Your task to perform on an android device: toggle notifications settings in the gmail app Image 0: 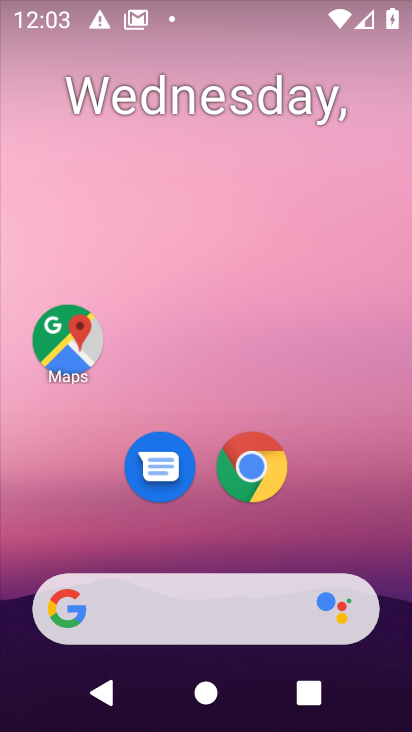
Step 0: drag from (207, 334) to (226, 65)
Your task to perform on an android device: toggle notifications settings in the gmail app Image 1: 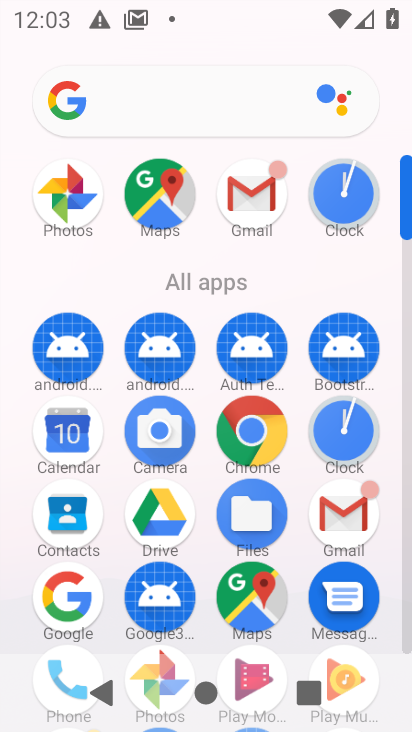
Step 1: click (245, 174)
Your task to perform on an android device: toggle notifications settings in the gmail app Image 2: 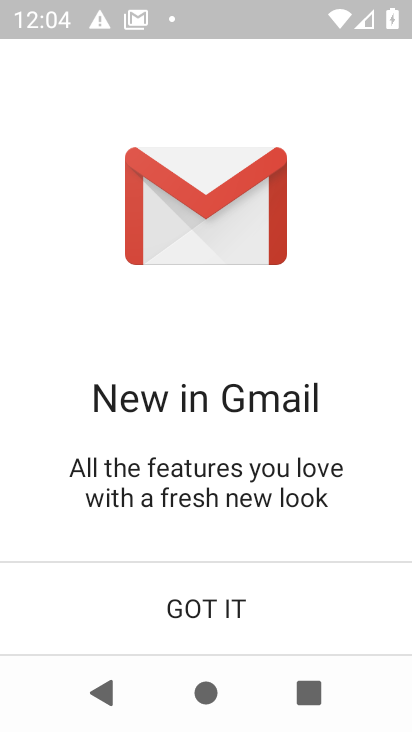
Step 2: click (119, 595)
Your task to perform on an android device: toggle notifications settings in the gmail app Image 3: 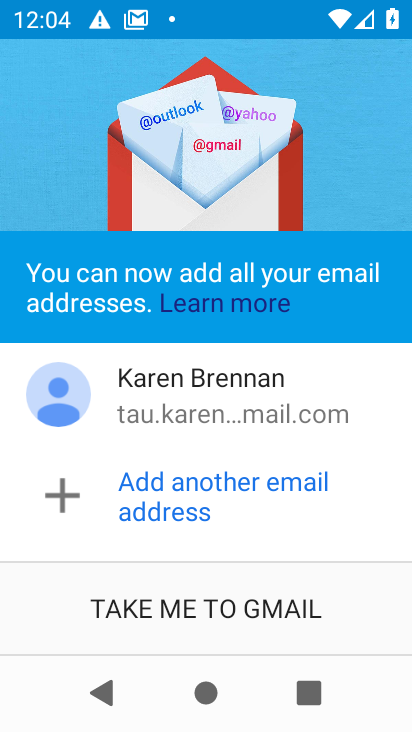
Step 3: click (119, 595)
Your task to perform on an android device: toggle notifications settings in the gmail app Image 4: 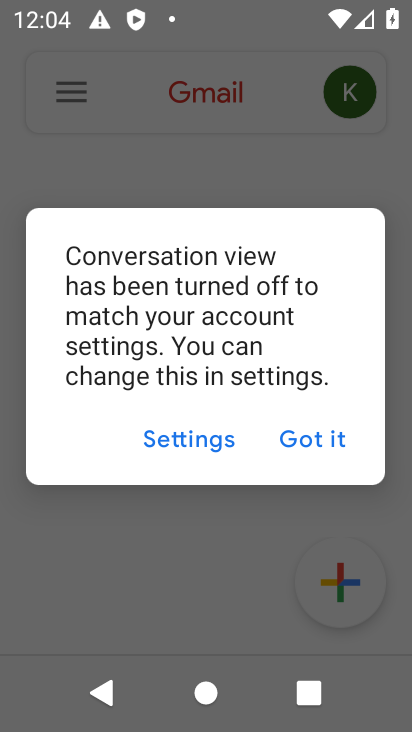
Step 4: click (339, 445)
Your task to perform on an android device: toggle notifications settings in the gmail app Image 5: 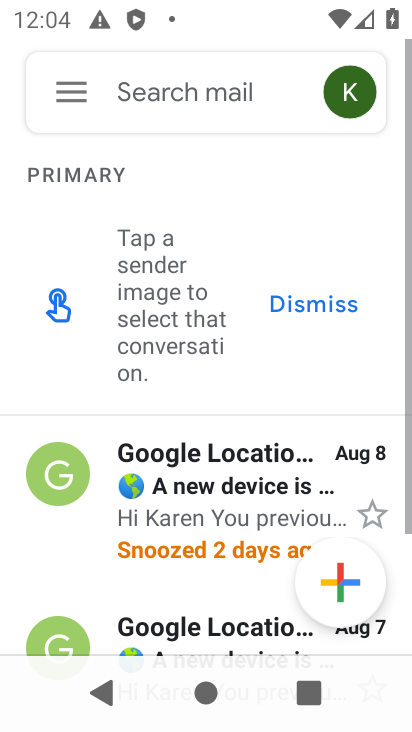
Step 5: click (82, 86)
Your task to perform on an android device: toggle notifications settings in the gmail app Image 6: 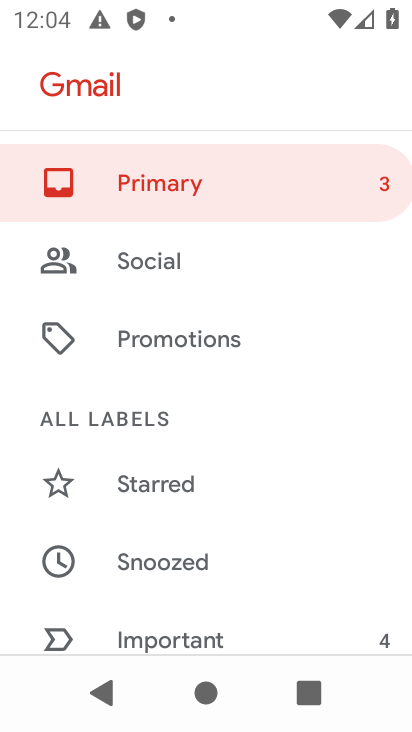
Step 6: drag from (230, 593) to (255, 97)
Your task to perform on an android device: toggle notifications settings in the gmail app Image 7: 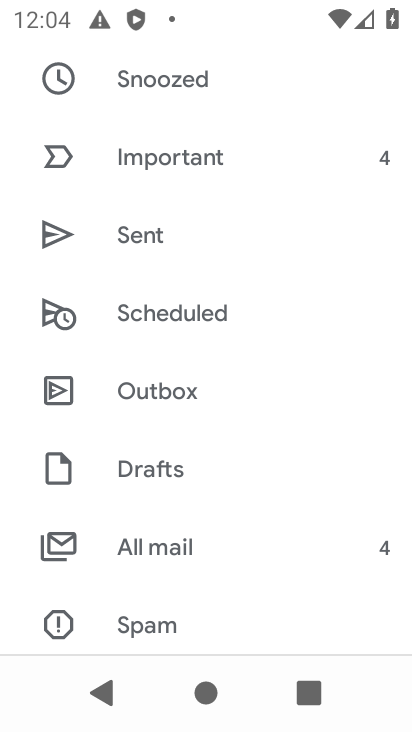
Step 7: drag from (302, 607) to (303, 223)
Your task to perform on an android device: toggle notifications settings in the gmail app Image 8: 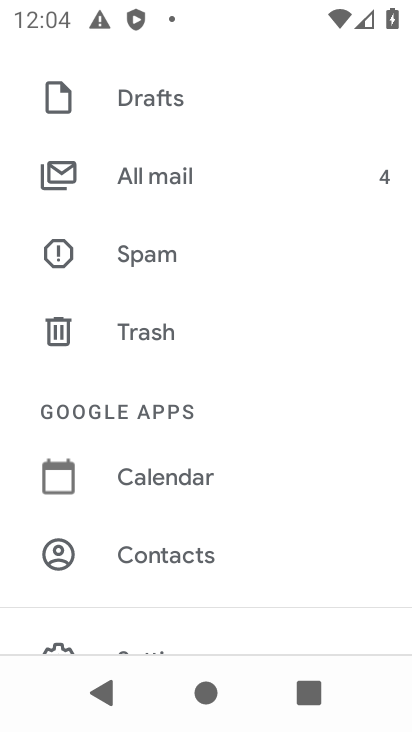
Step 8: drag from (260, 574) to (269, 149)
Your task to perform on an android device: toggle notifications settings in the gmail app Image 9: 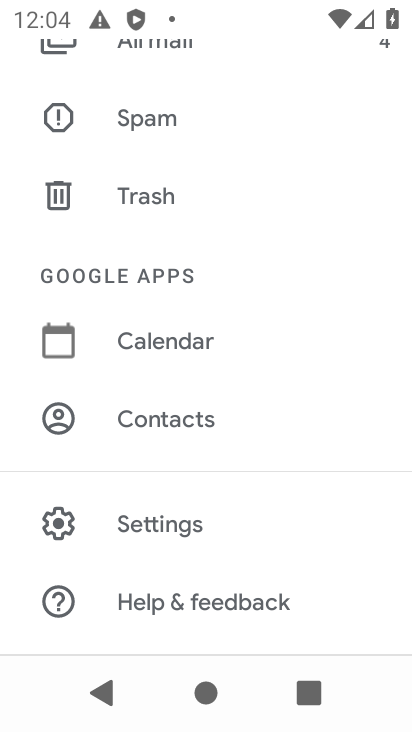
Step 9: click (160, 524)
Your task to perform on an android device: toggle notifications settings in the gmail app Image 10: 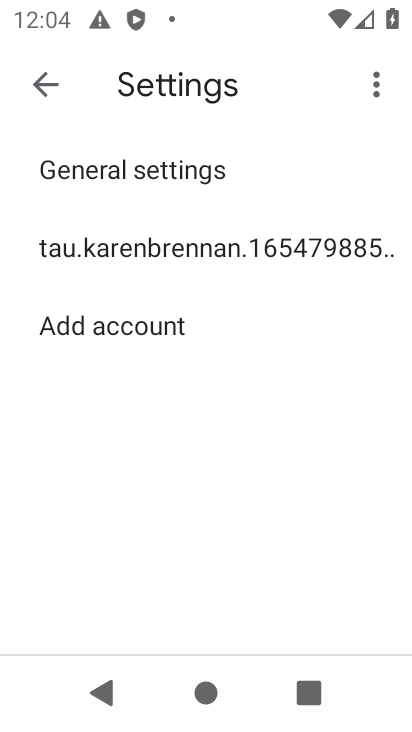
Step 10: click (284, 262)
Your task to perform on an android device: toggle notifications settings in the gmail app Image 11: 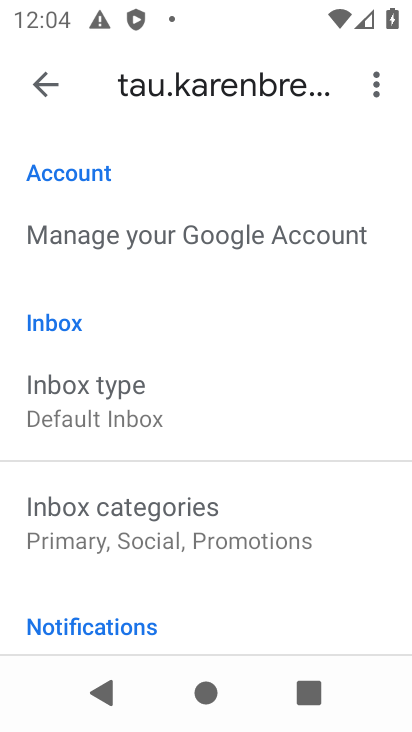
Step 11: drag from (138, 604) to (134, 173)
Your task to perform on an android device: toggle notifications settings in the gmail app Image 12: 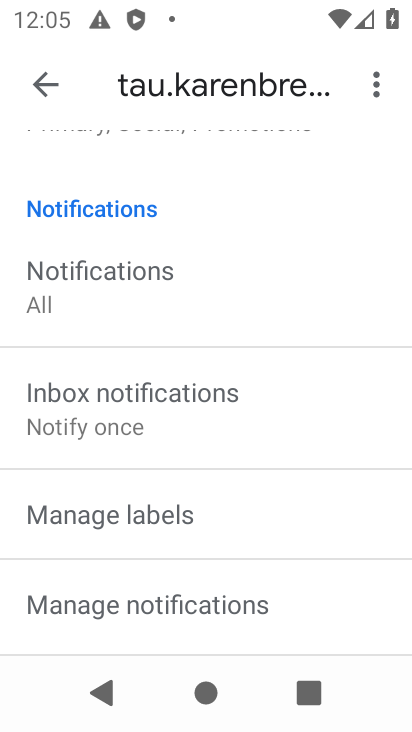
Step 12: click (93, 307)
Your task to perform on an android device: toggle notifications settings in the gmail app Image 13: 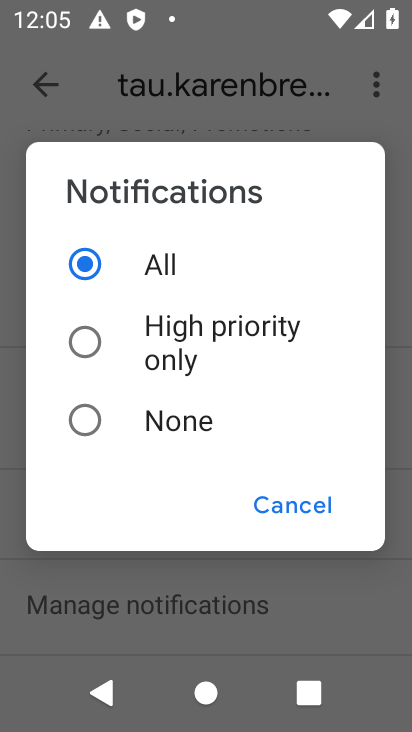
Step 13: click (163, 334)
Your task to perform on an android device: toggle notifications settings in the gmail app Image 14: 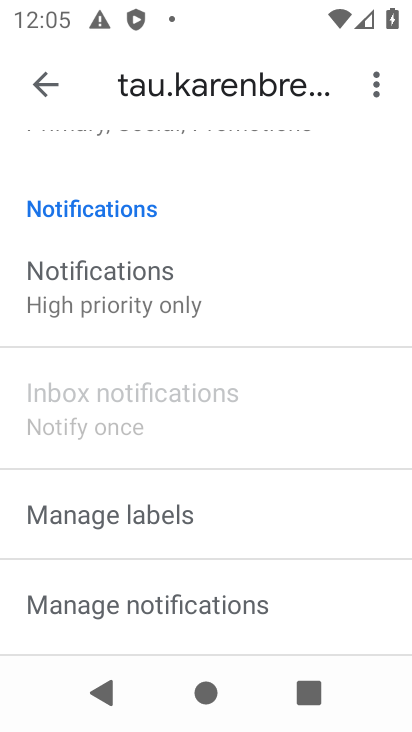
Step 14: task complete